Your task to perform on an android device: What's the weather going to be this weekend? Image 0: 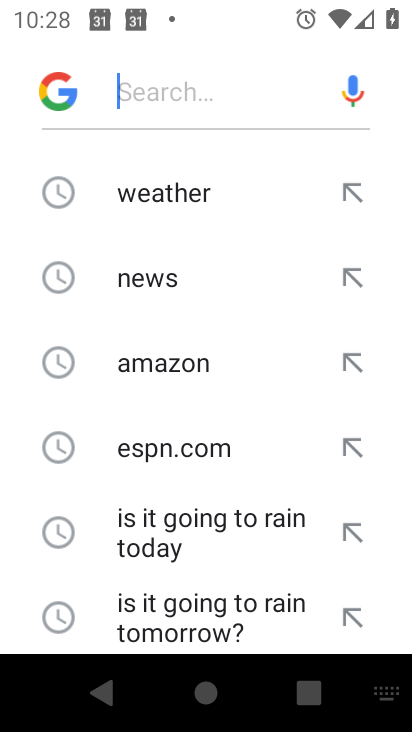
Step 0: click (148, 196)
Your task to perform on an android device: What's the weather going to be this weekend? Image 1: 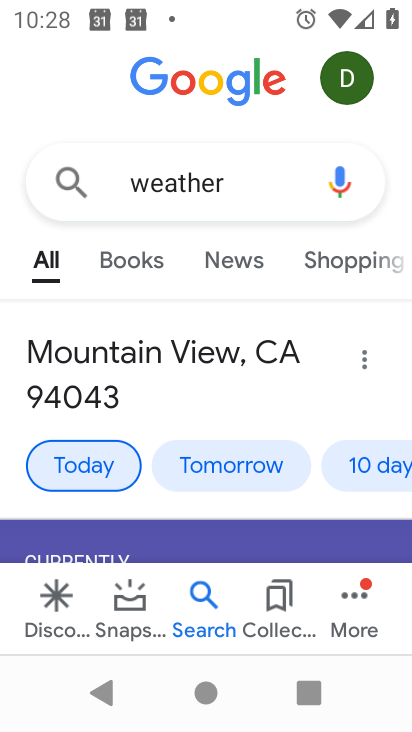
Step 1: click (348, 464)
Your task to perform on an android device: What's the weather going to be this weekend? Image 2: 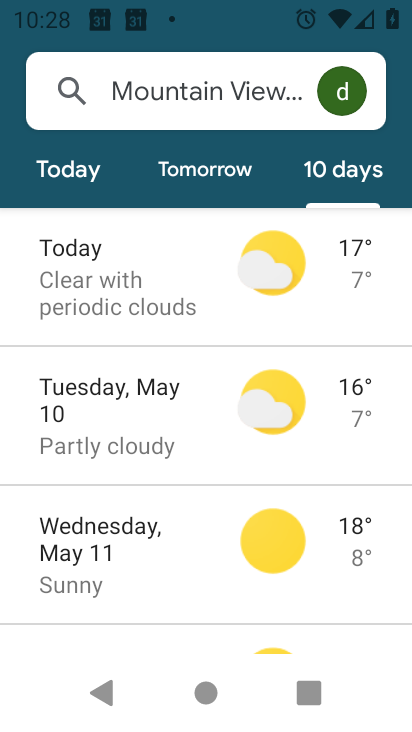
Step 2: task complete